Your task to perform on an android device: Add "panasonic triple a" to the cart on bestbuy.com Image 0: 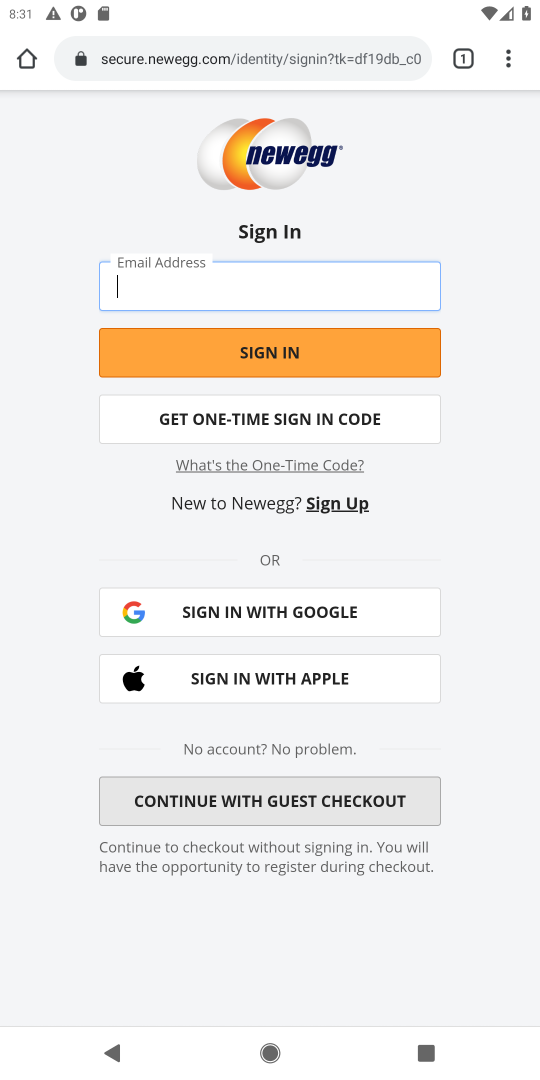
Step 0: press home button
Your task to perform on an android device: Add "panasonic triple a" to the cart on bestbuy.com Image 1: 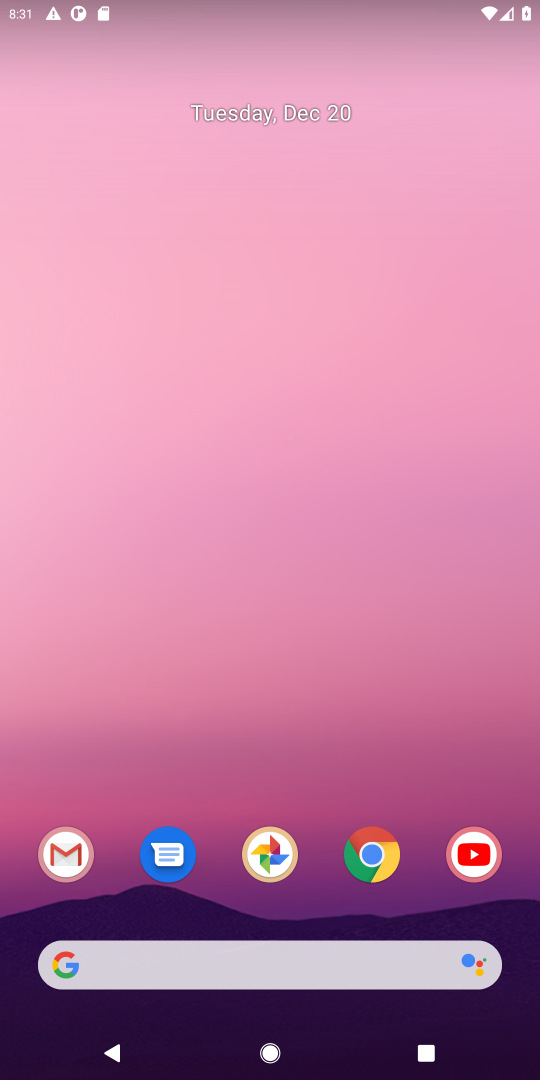
Step 1: click (380, 855)
Your task to perform on an android device: Add "panasonic triple a" to the cart on bestbuy.com Image 2: 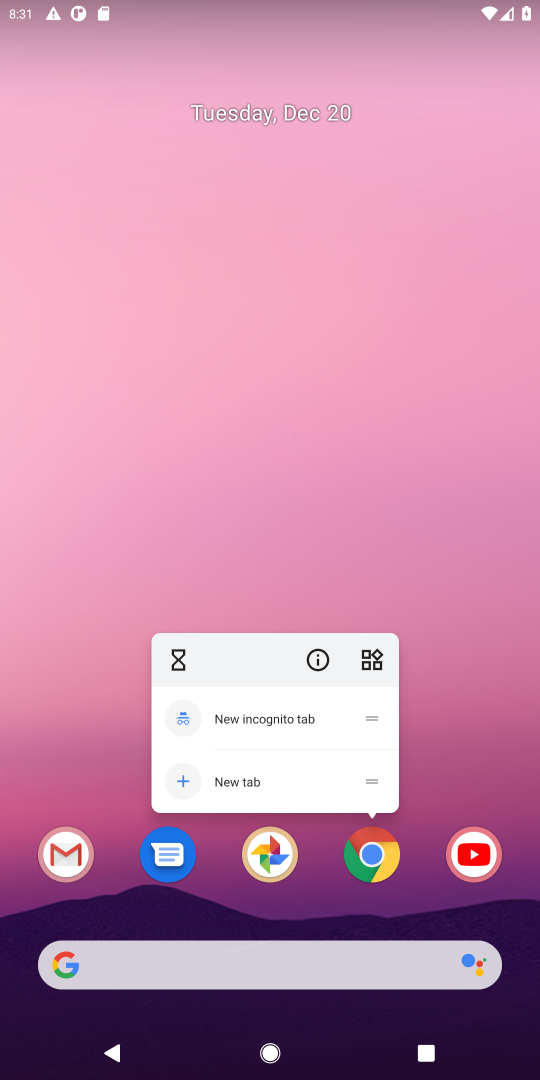
Step 2: click (380, 855)
Your task to perform on an android device: Add "panasonic triple a" to the cart on bestbuy.com Image 3: 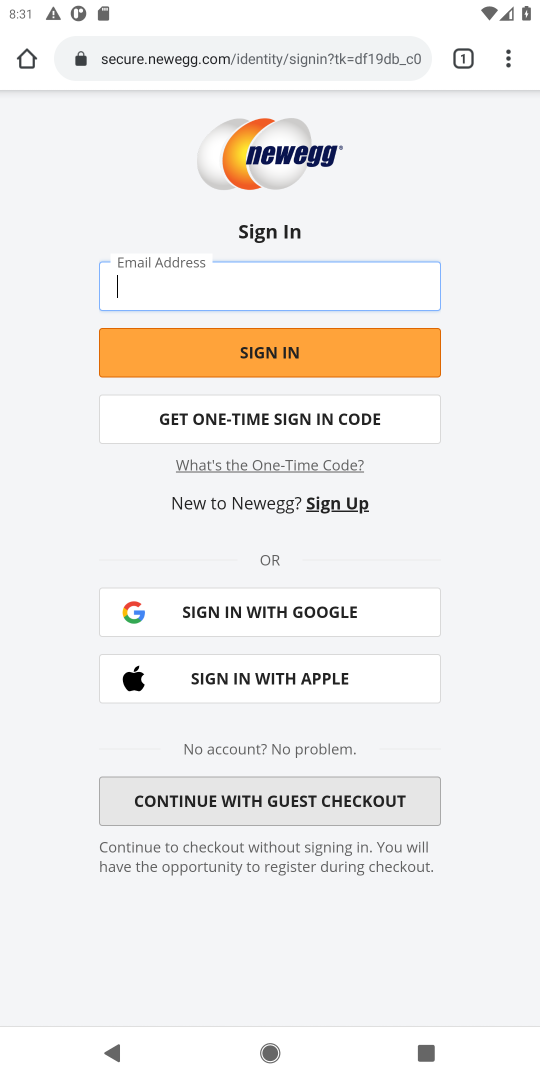
Step 3: click (223, 64)
Your task to perform on an android device: Add "panasonic triple a" to the cart on bestbuy.com Image 4: 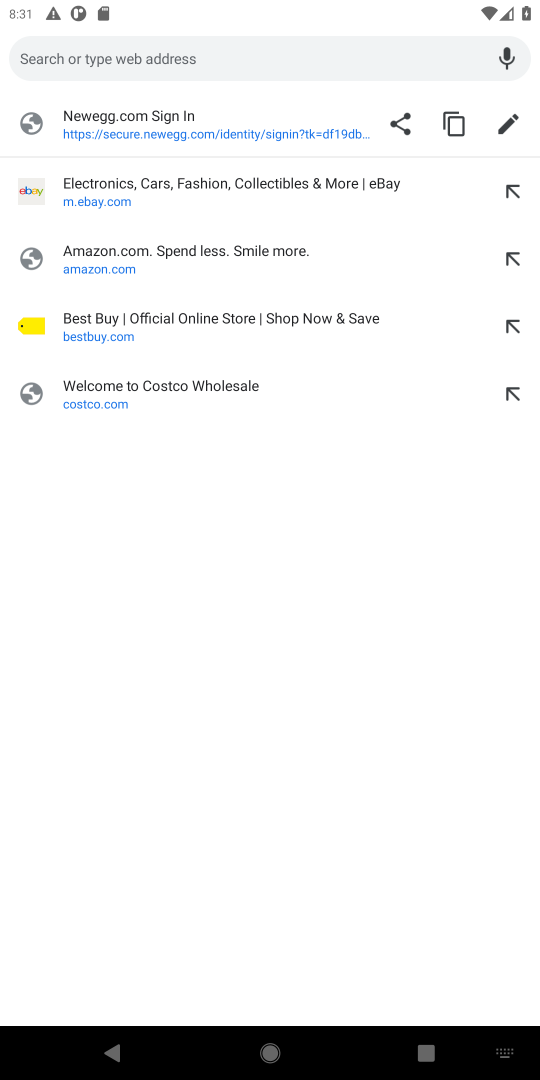
Step 4: click (112, 312)
Your task to perform on an android device: Add "panasonic triple a" to the cart on bestbuy.com Image 5: 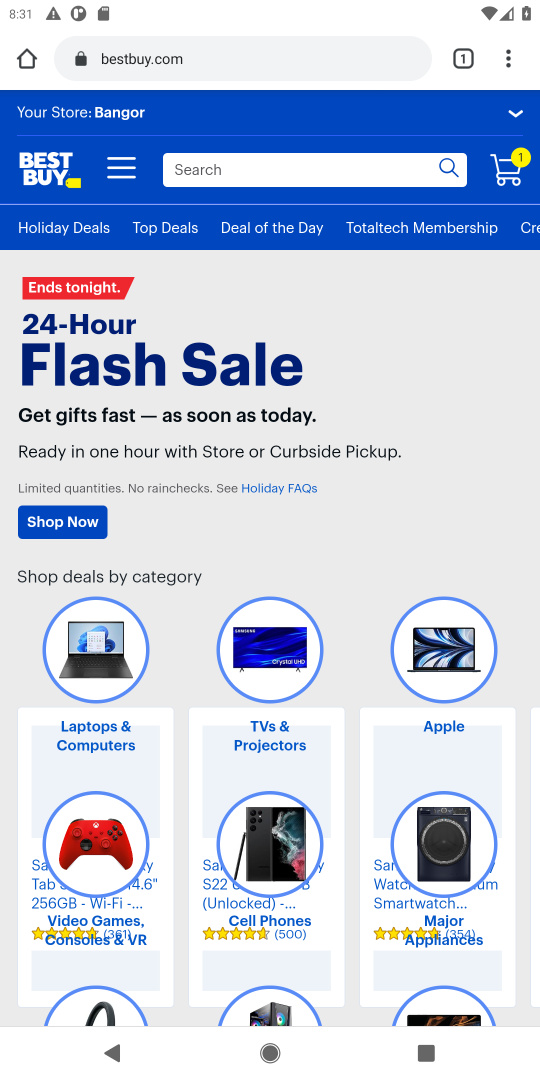
Step 5: click (202, 169)
Your task to perform on an android device: Add "panasonic triple a" to the cart on bestbuy.com Image 6: 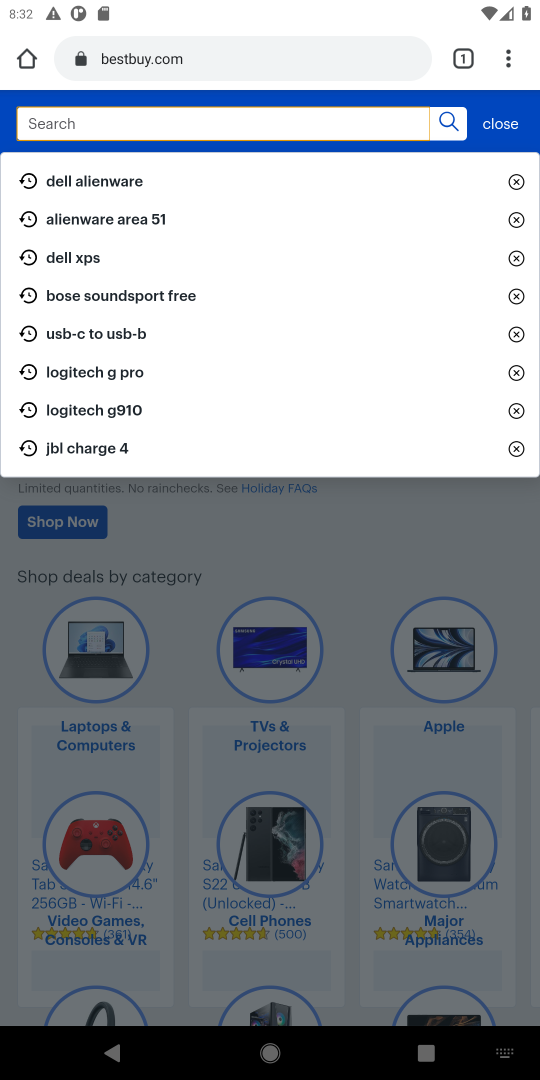
Step 6: type "panasonic triple a"
Your task to perform on an android device: Add "panasonic triple a" to the cart on bestbuy.com Image 7: 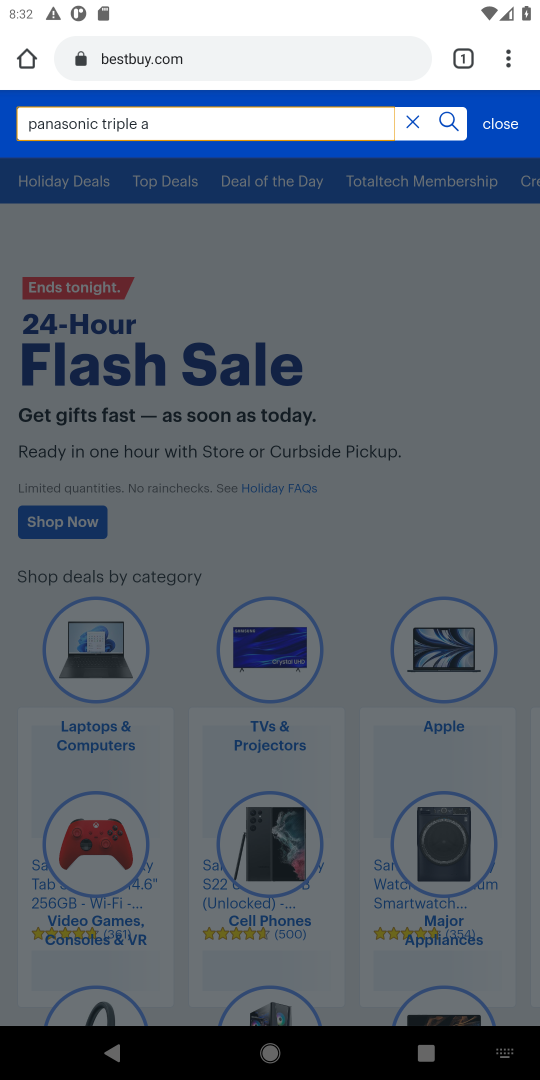
Step 7: click (450, 125)
Your task to perform on an android device: Add "panasonic triple a" to the cart on bestbuy.com Image 8: 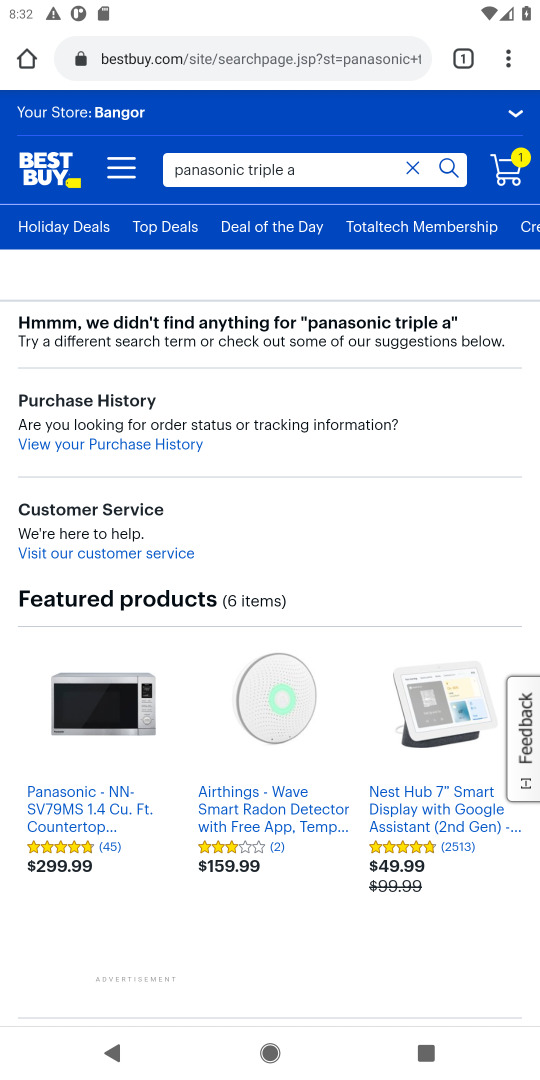
Step 8: task complete